Your task to perform on an android device: open the mobile data screen to see how much data has been used Image 0: 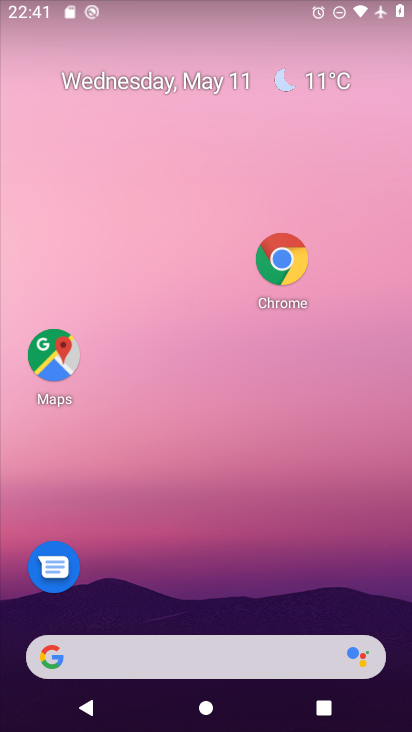
Step 0: press home button
Your task to perform on an android device: open the mobile data screen to see how much data has been used Image 1: 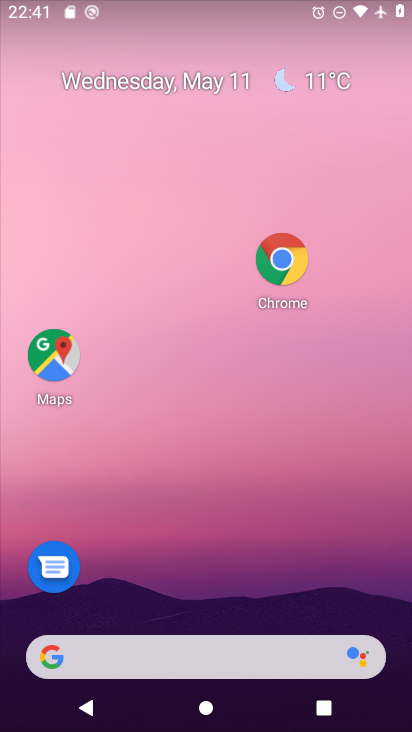
Step 1: drag from (153, 660) to (275, 221)
Your task to perform on an android device: open the mobile data screen to see how much data has been used Image 2: 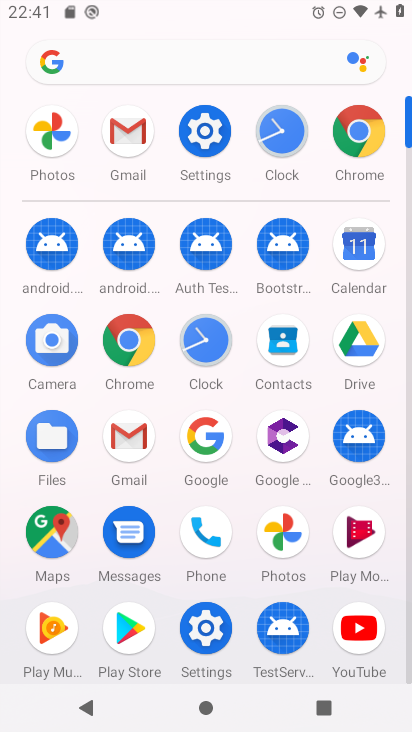
Step 2: click (208, 133)
Your task to perform on an android device: open the mobile data screen to see how much data has been used Image 3: 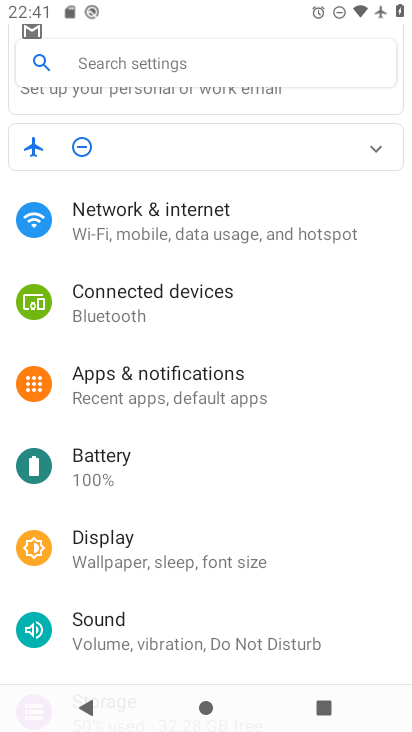
Step 3: click (192, 222)
Your task to perform on an android device: open the mobile data screen to see how much data has been used Image 4: 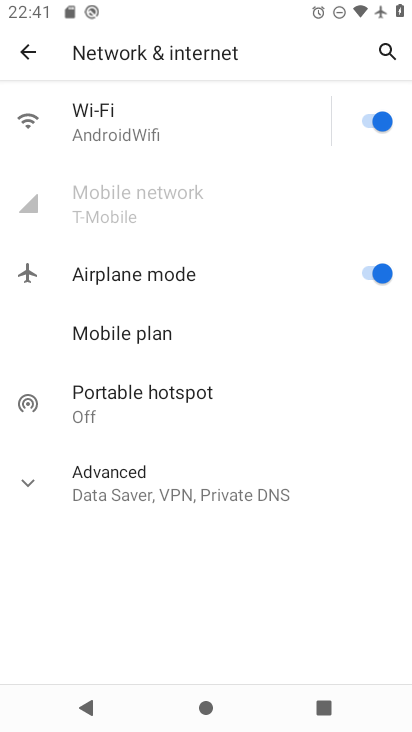
Step 4: task complete